Your task to perform on an android device: Open Yahoo.com Image 0: 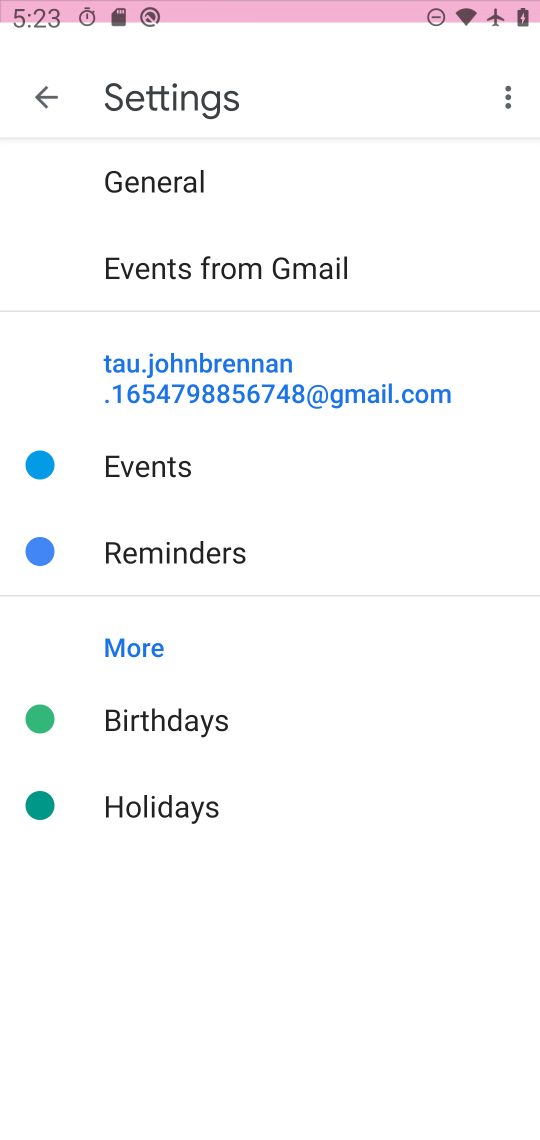
Step 0: press home button
Your task to perform on an android device: Open Yahoo.com Image 1: 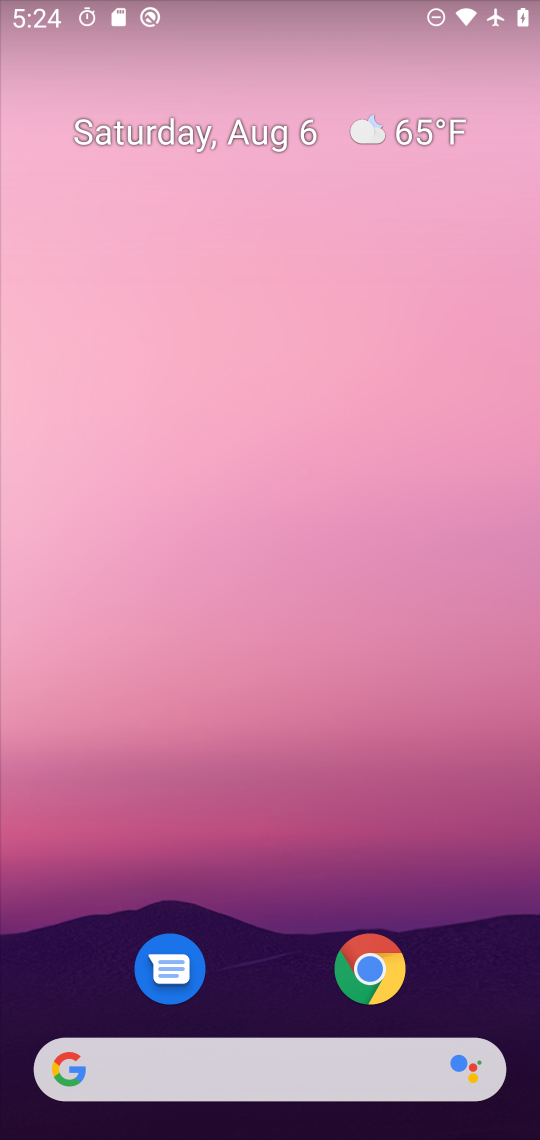
Step 1: click (62, 1079)
Your task to perform on an android device: Open Yahoo.com Image 2: 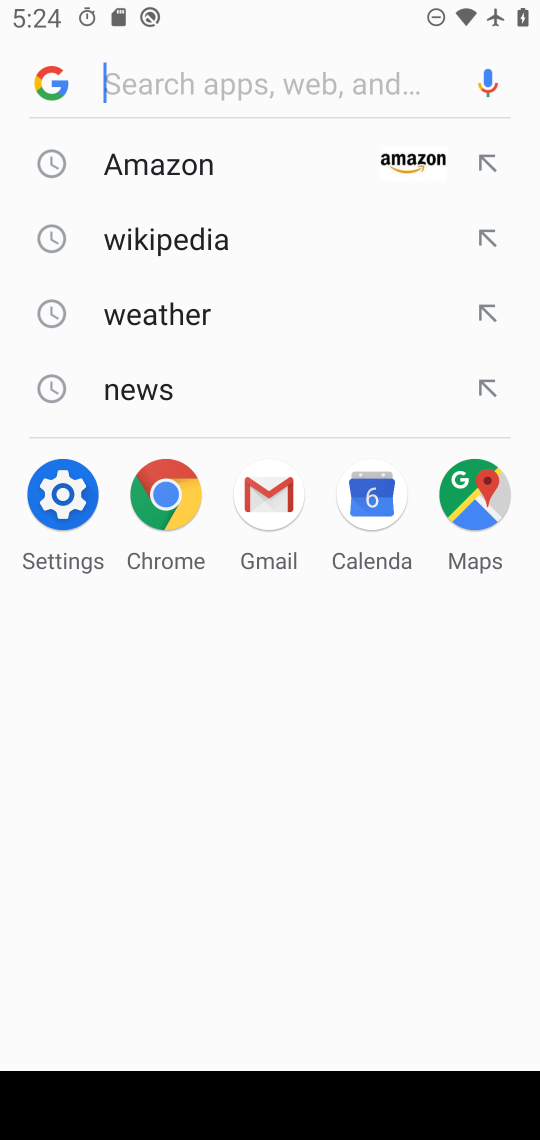
Step 2: type "Yahoo.com"
Your task to perform on an android device: Open Yahoo.com Image 3: 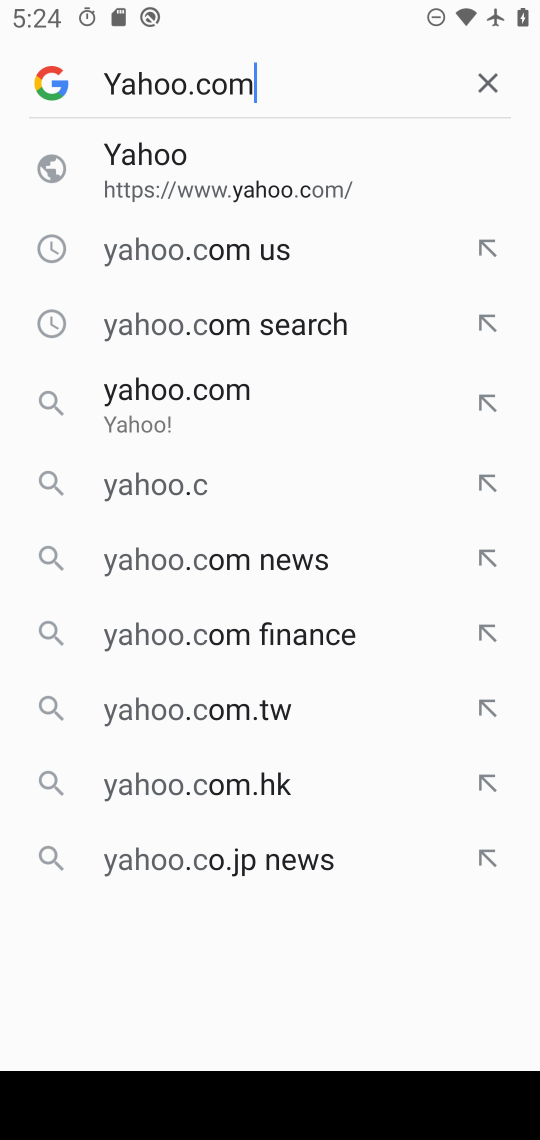
Step 3: press enter
Your task to perform on an android device: Open Yahoo.com Image 4: 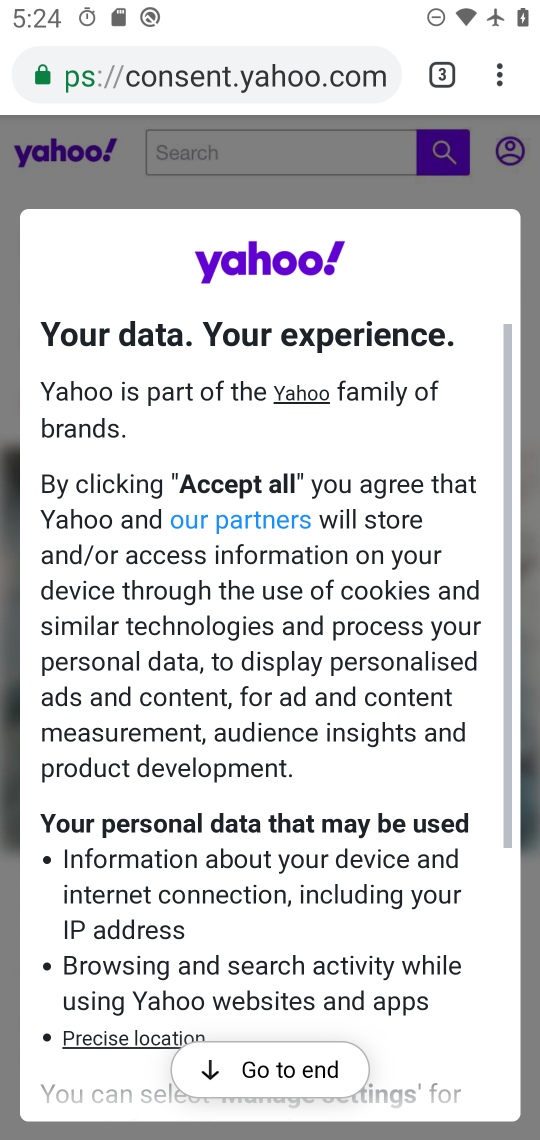
Step 4: click (238, 1079)
Your task to perform on an android device: Open Yahoo.com Image 5: 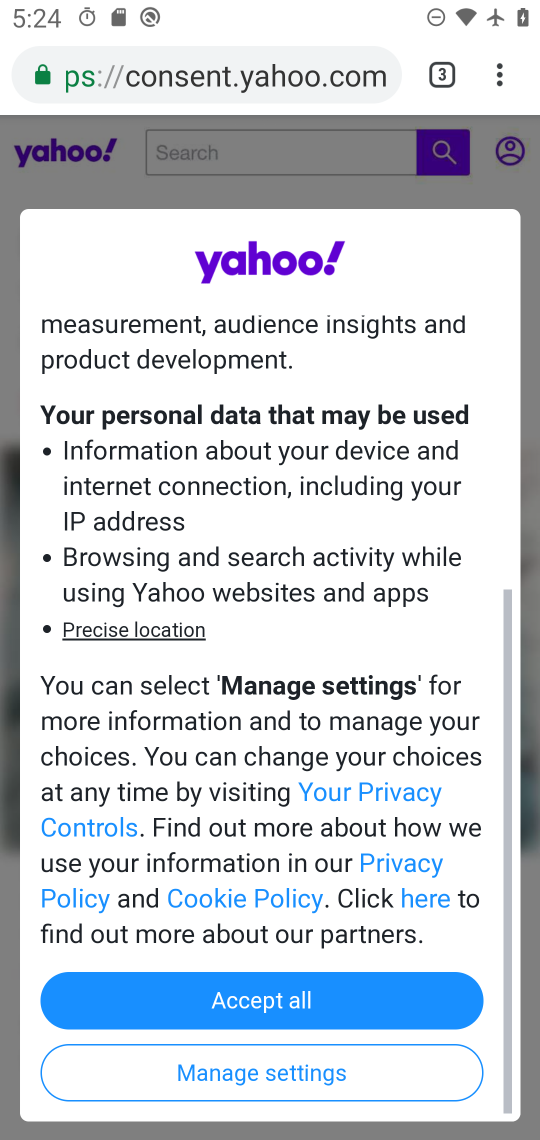
Step 5: click (250, 1011)
Your task to perform on an android device: Open Yahoo.com Image 6: 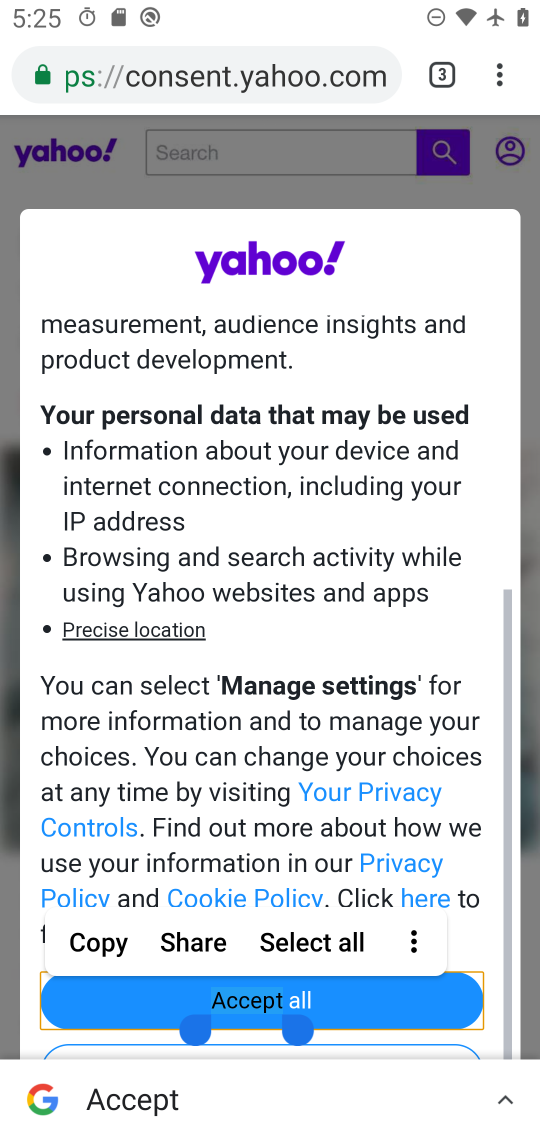
Step 6: click (250, 1005)
Your task to perform on an android device: Open Yahoo.com Image 7: 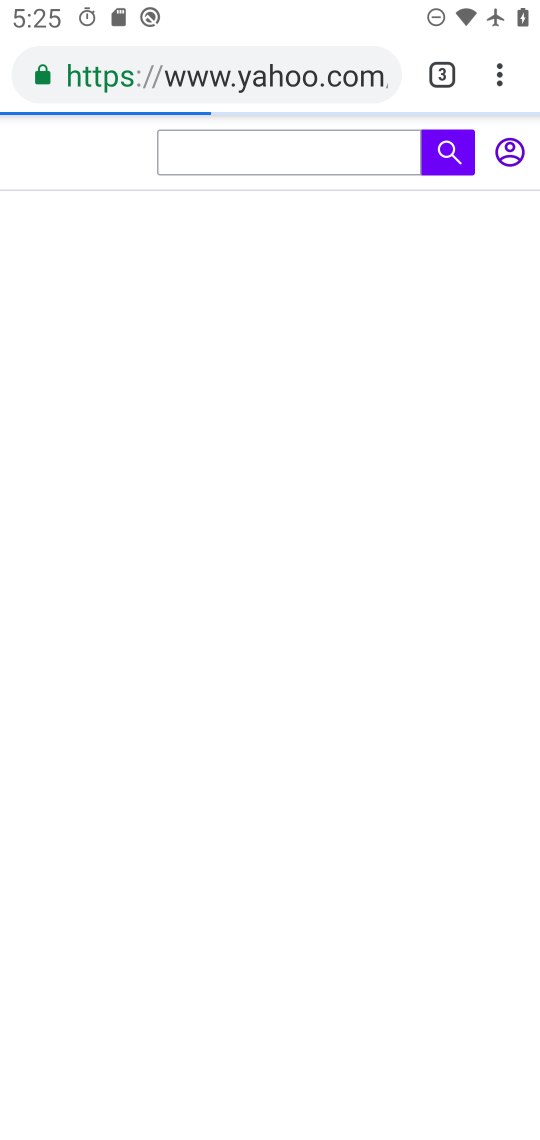
Step 7: task complete